Your task to perform on an android device: open app "Pandora - Music & Podcasts" (install if not already installed) and go to login screen Image 0: 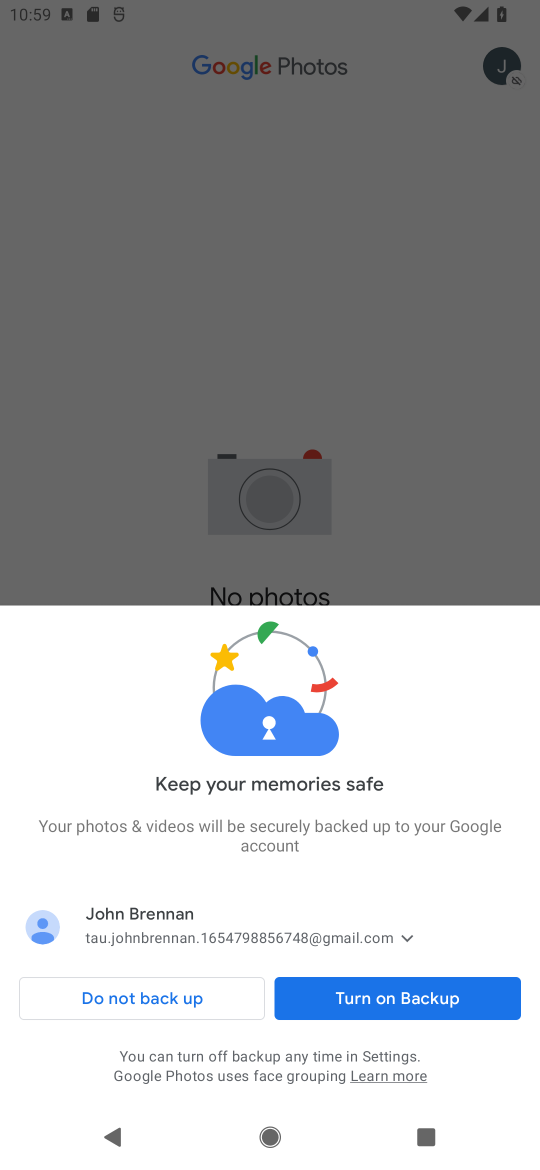
Step 0: press home button
Your task to perform on an android device: open app "Pandora - Music & Podcasts" (install if not already installed) and go to login screen Image 1: 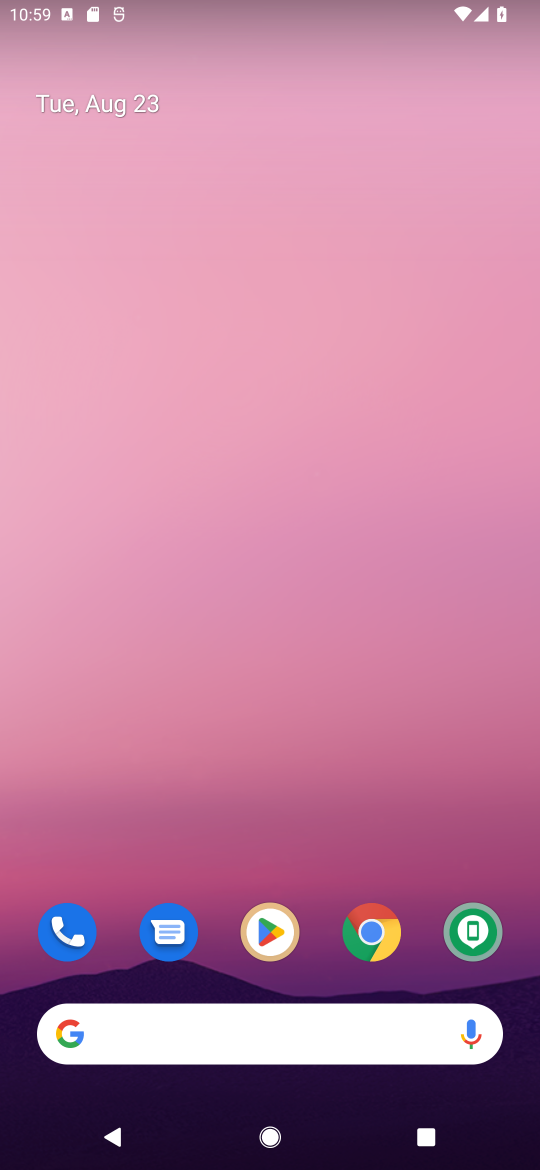
Step 1: click (262, 928)
Your task to perform on an android device: open app "Pandora - Music & Podcasts" (install if not already installed) and go to login screen Image 2: 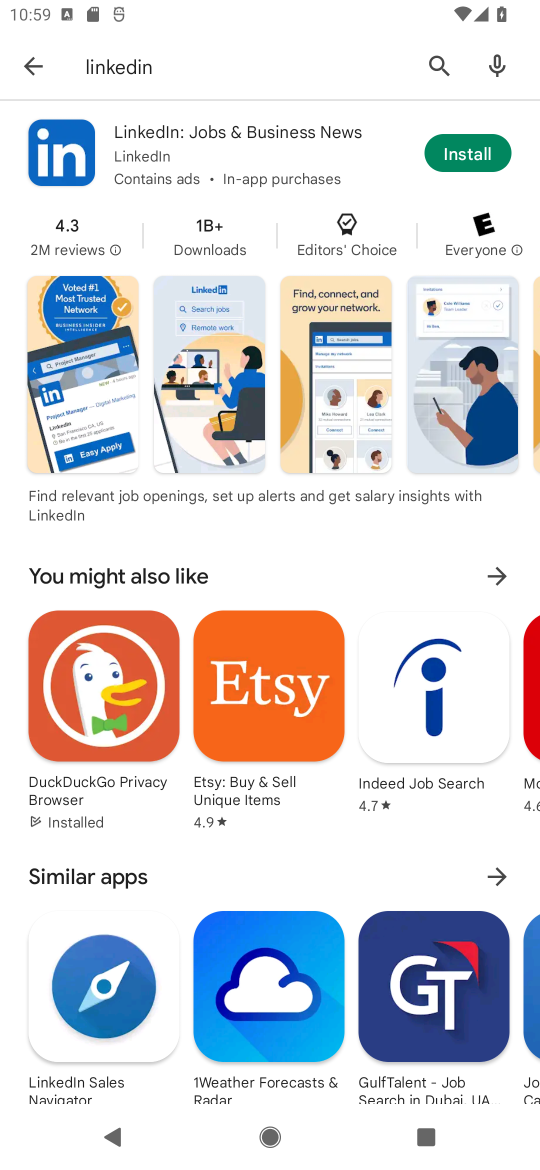
Step 2: click (426, 56)
Your task to perform on an android device: open app "Pandora - Music & Podcasts" (install if not already installed) and go to login screen Image 3: 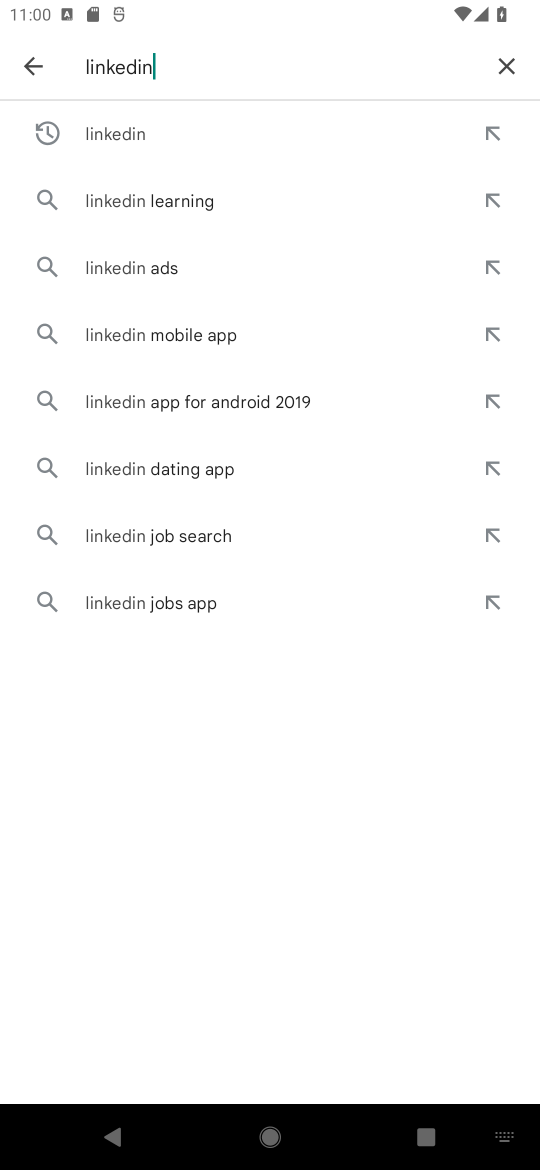
Step 3: click (499, 57)
Your task to perform on an android device: open app "Pandora - Music & Podcasts" (install if not already installed) and go to login screen Image 4: 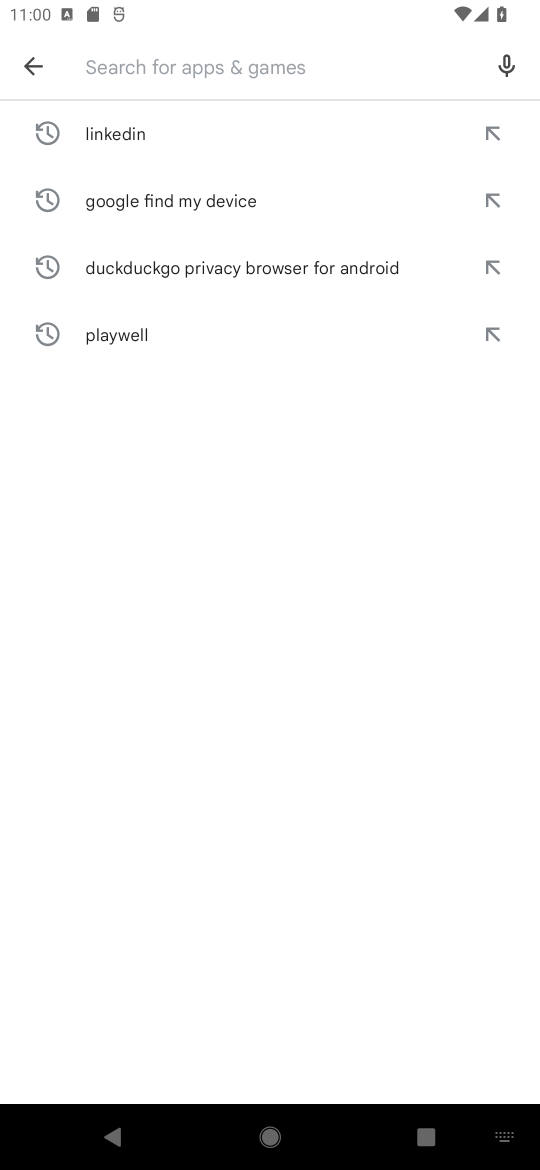
Step 4: click (169, 60)
Your task to perform on an android device: open app "Pandora - Music & Podcasts" (install if not already installed) and go to login screen Image 5: 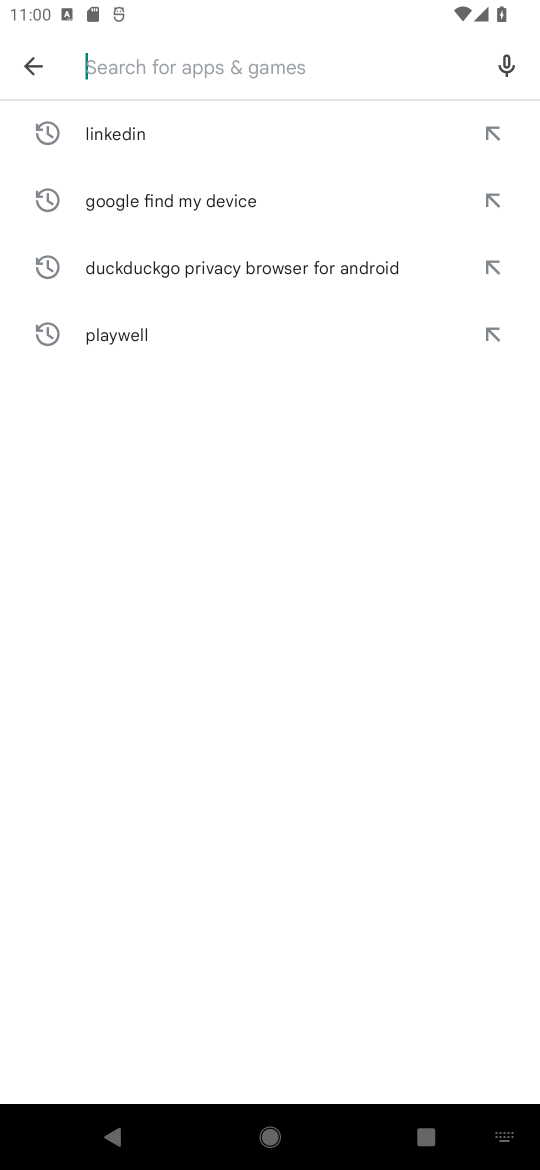
Step 5: type "Pandora"
Your task to perform on an android device: open app "Pandora - Music & Podcasts" (install if not already installed) and go to login screen Image 6: 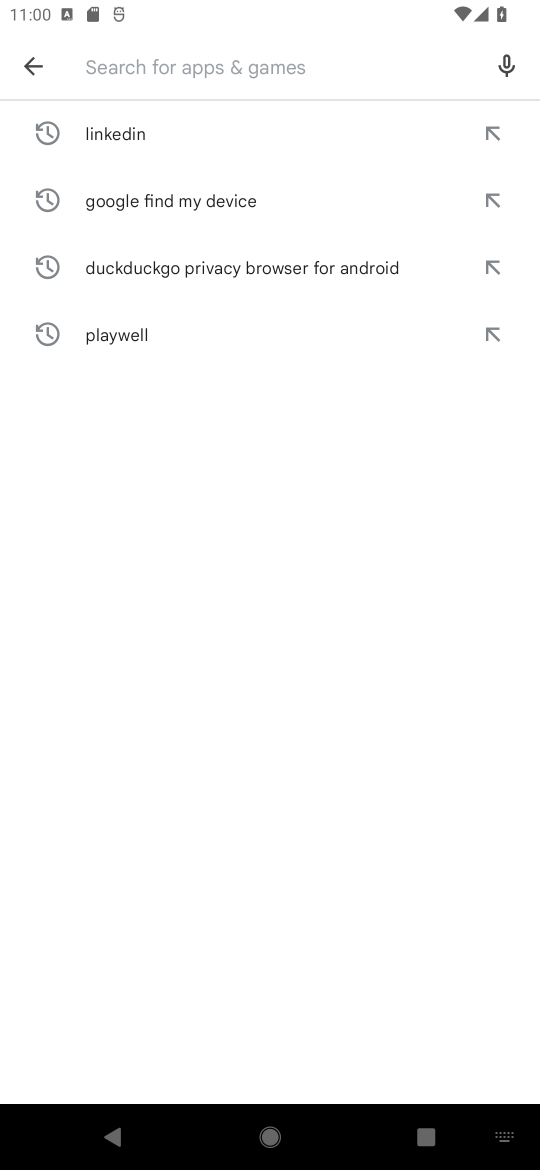
Step 6: click (316, 701)
Your task to perform on an android device: open app "Pandora - Music & Podcasts" (install if not already installed) and go to login screen Image 7: 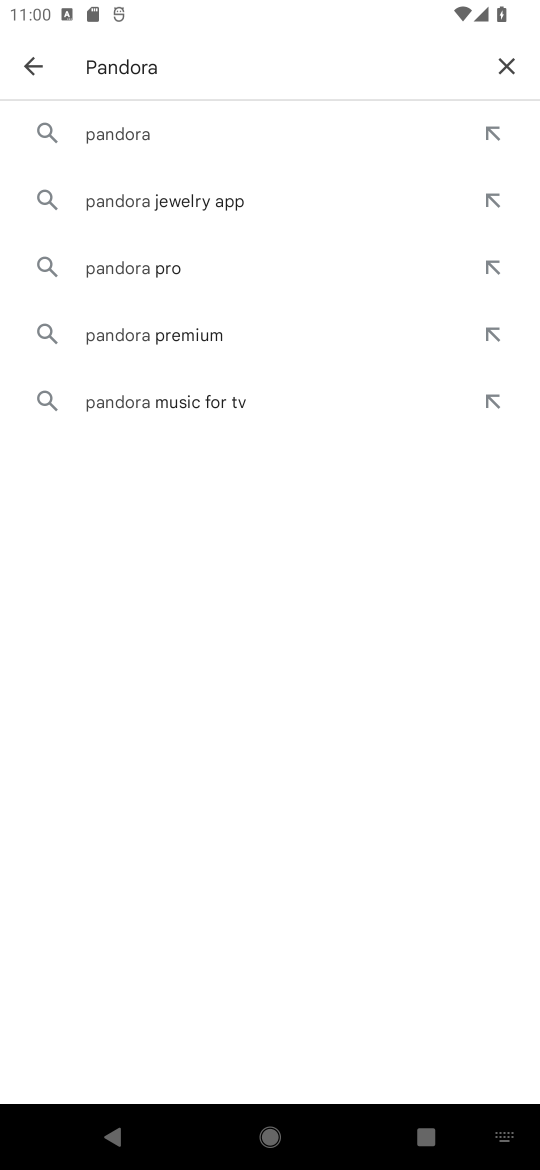
Step 7: click (149, 129)
Your task to perform on an android device: open app "Pandora - Music & Podcasts" (install if not already installed) and go to login screen Image 8: 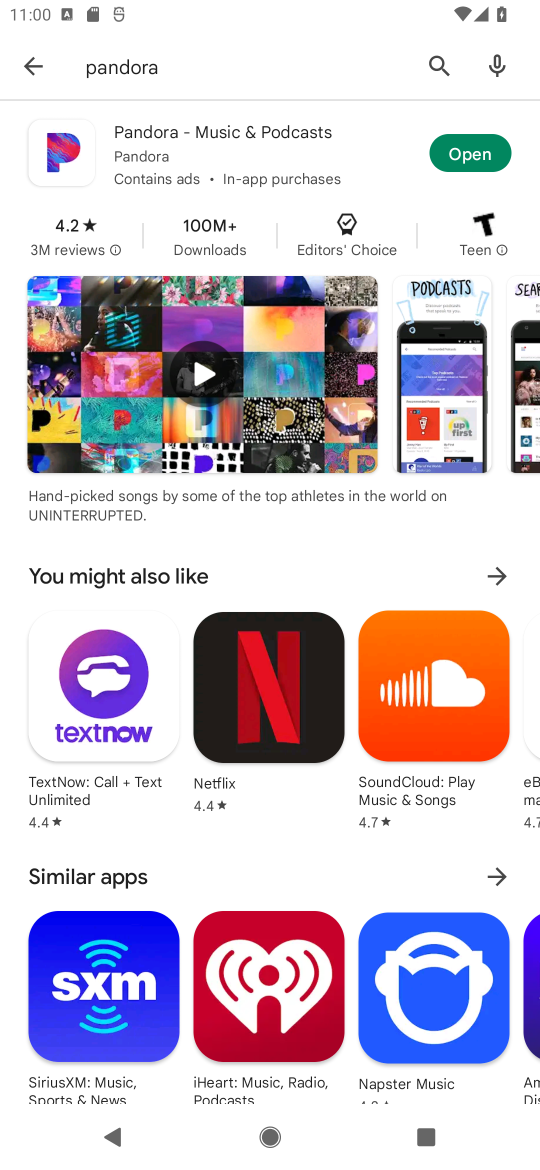
Step 8: click (456, 152)
Your task to perform on an android device: open app "Pandora - Music & Podcasts" (install if not already installed) and go to login screen Image 9: 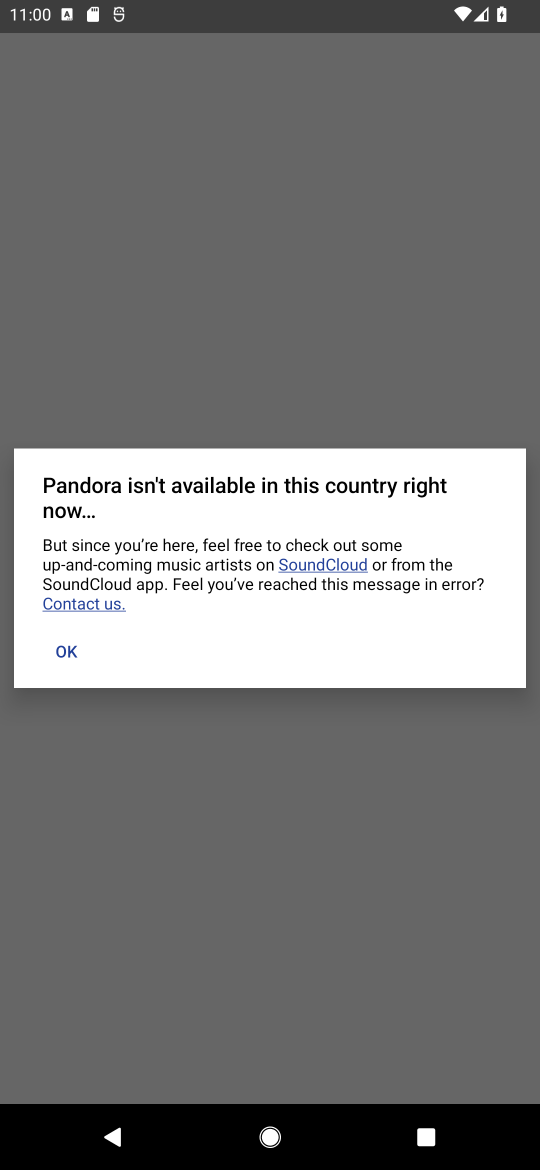
Step 9: click (56, 641)
Your task to perform on an android device: open app "Pandora - Music & Podcasts" (install if not already installed) and go to login screen Image 10: 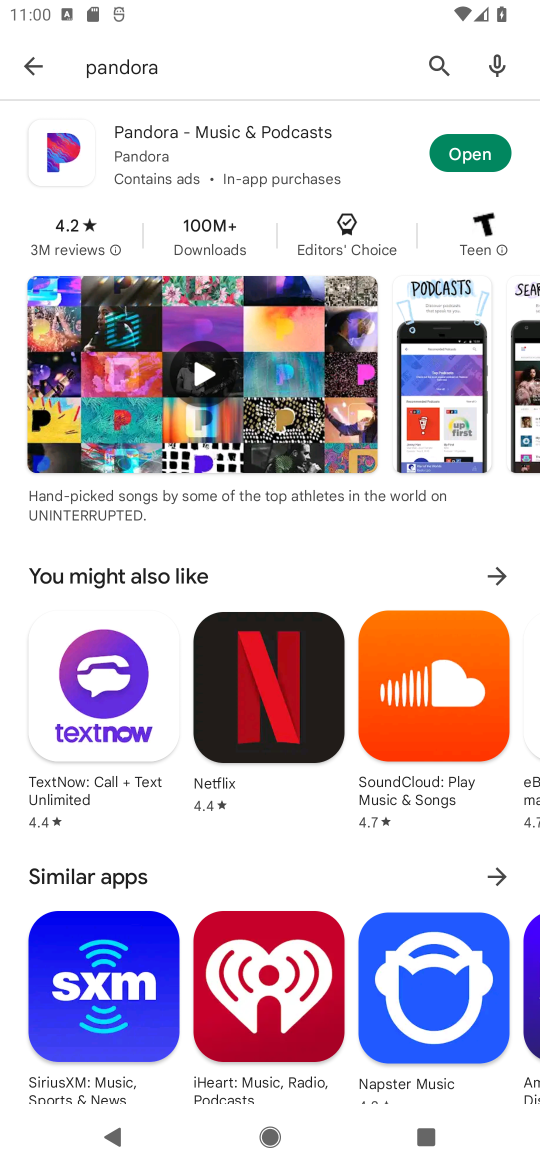
Step 10: click (485, 147)
Your task to perform on an android device: open app "Pandora - Music & Podcasts" (install if not already installed) and go to login screen Image 11: 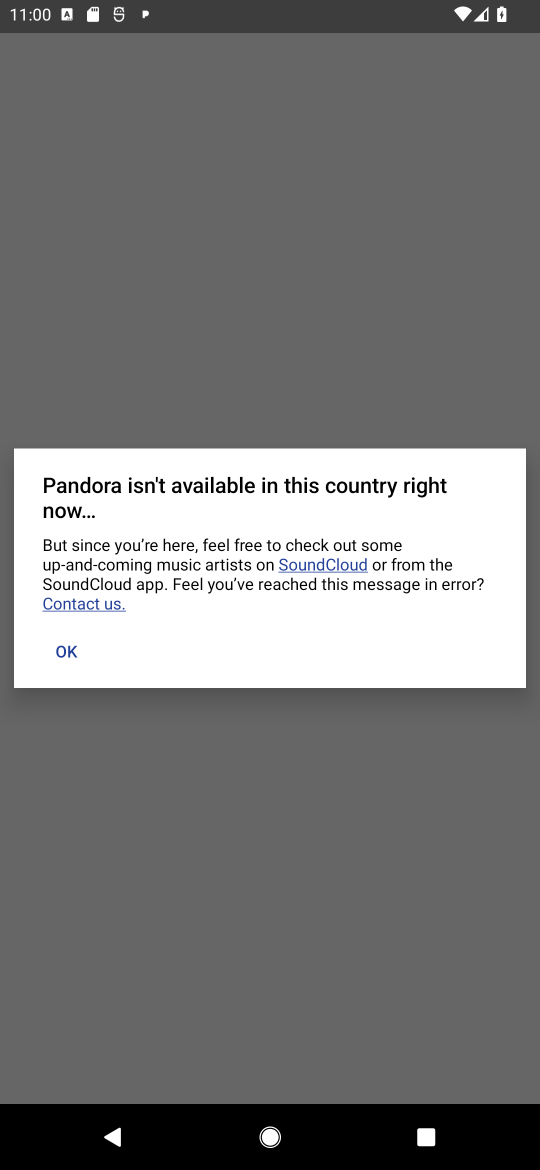
Step 11: click (56, 644)
Your task to perform on an android device: open app "Pandora - Music & Podcasts" (install if not already installed) and go to login screen Image 12: 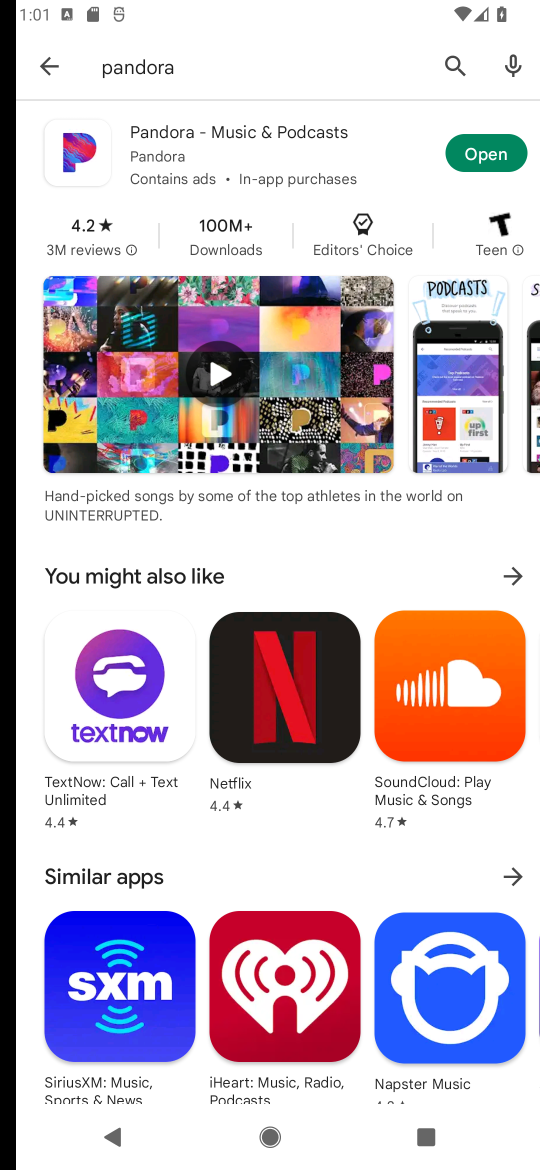
Step 12: task complete